Your task to perform on an android device: allow notifications from all sites in the chrome app Image 0: 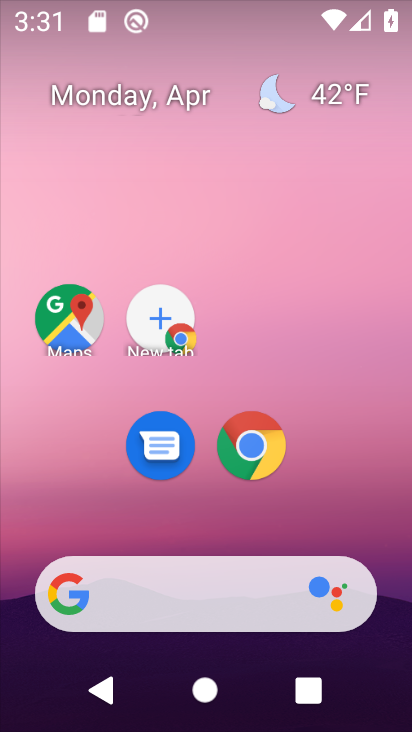
Step 0: click (254, 436)
Your task to perform on an android device: allow notifications from all sites in the chrome app Image 1: 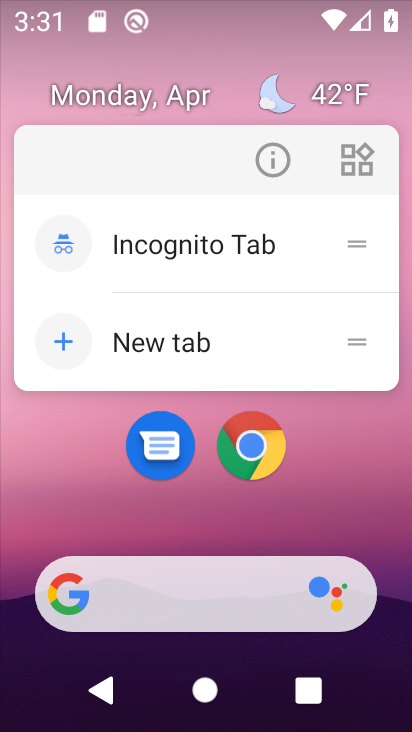
Step 1: click (246, 448)
Your task to perform on an android device: allow notifications from all sites in the chrome app Image 2: 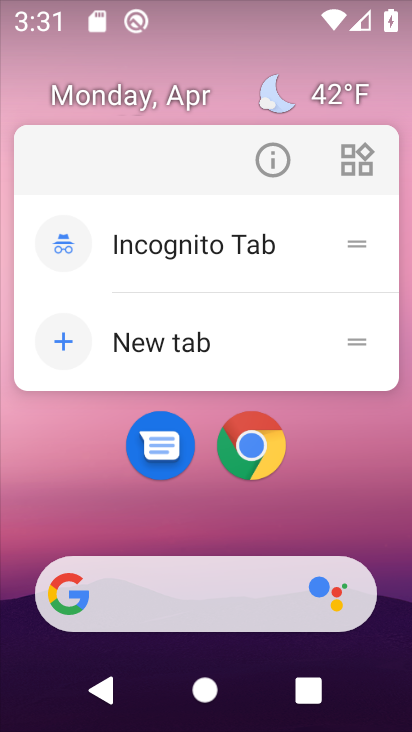
Step 2: click (246, 448)
Your task to perform on an android device: allow notifications from all sites in the chrome app Image 3: 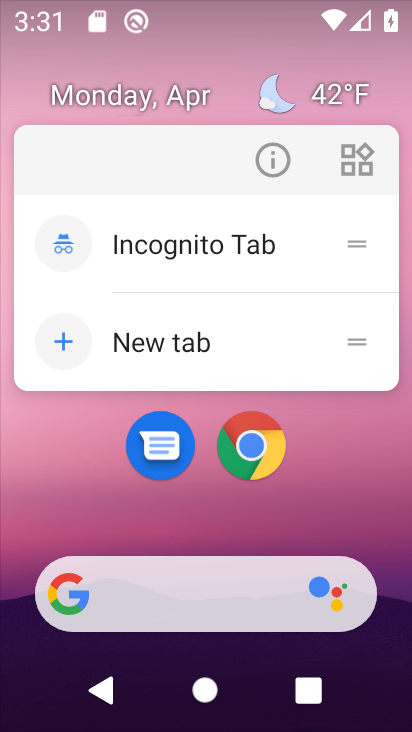
Step 3: click (321, 453)
Your task to perform on an android device: allow notifications from all sites in the chrome app Image 4: 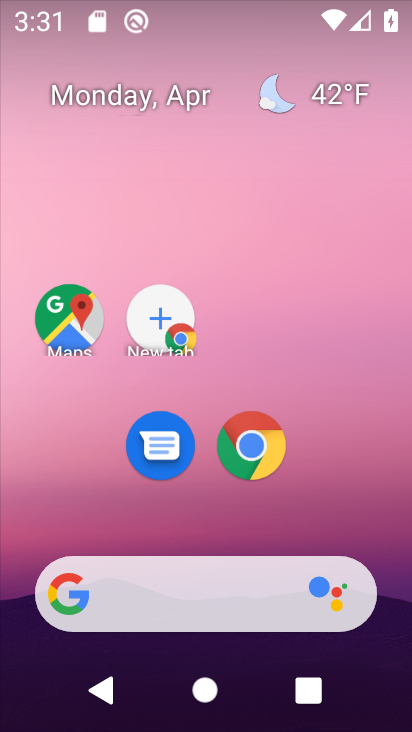
Step 4: click (251, 439)
Your task to perform on an android device: allow notifications from all sites in the chrome app Image 5: 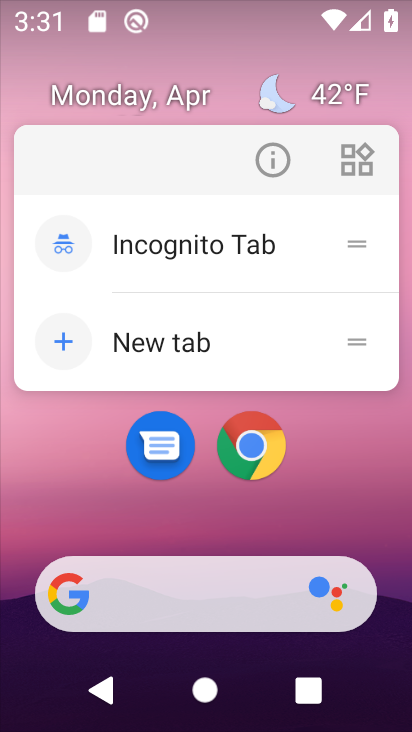
Step 5: click (323, 424)
Your task to perform on an android device: allow notifications from all sites in the chrome app Image 6: 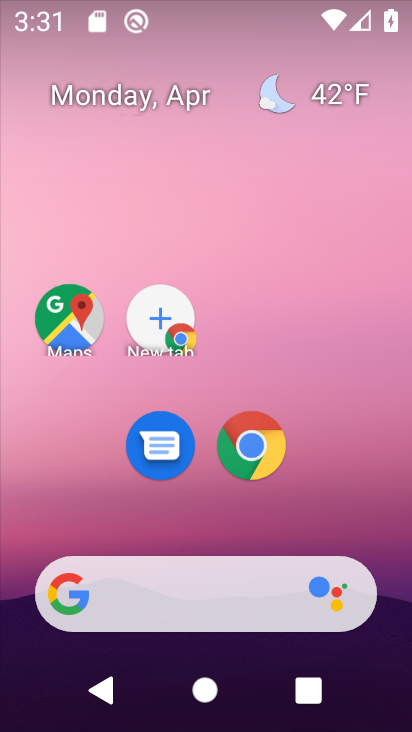
Step 6: click (387, 440)
Your task to perform on an android device: allow notifications from all sites in the chrome app Image 7: 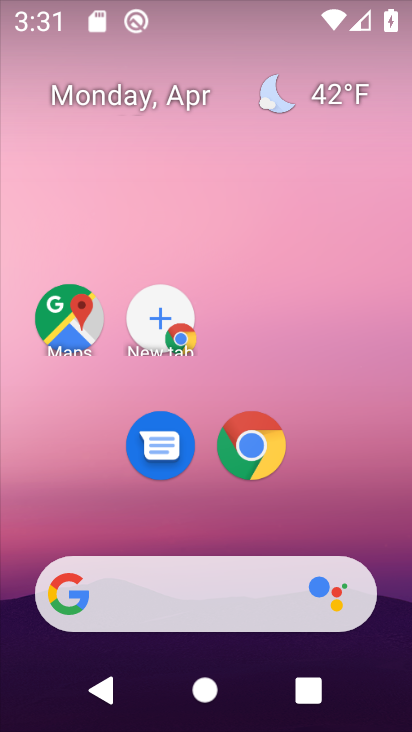
Step 7: click (248, 439)
Your task to perform on an android device: allow notifications from all sites in the chrome app Image 8: 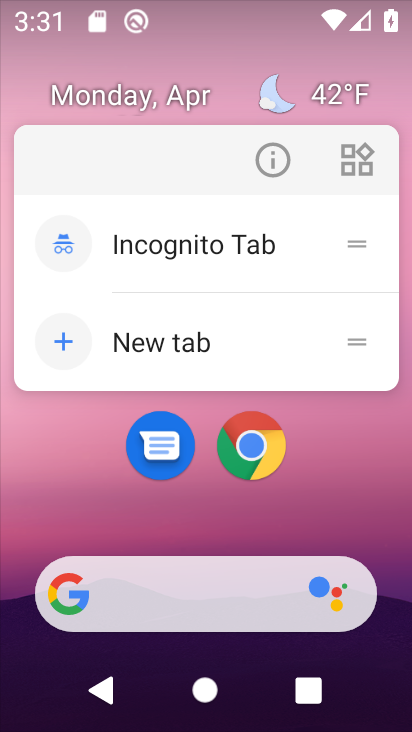
Step 8: click (248, 439)
Your task to perform on an android device: allow notifications from all sites in the chrome app Image 9: 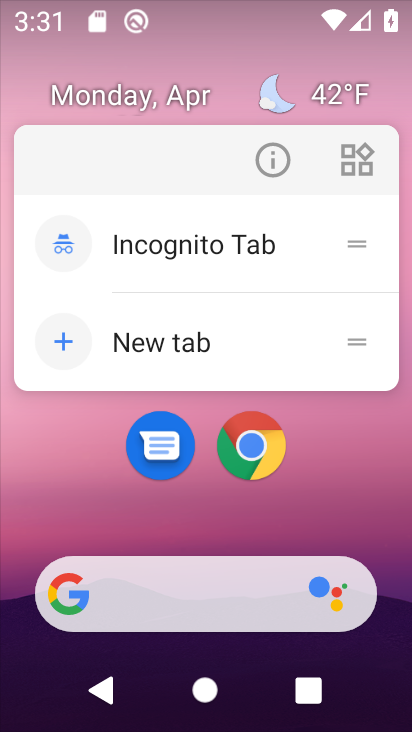
Step 9: click (317, 446)
Your task to perform on an android device: allow notifications from all sites in the chrome app Image 10: 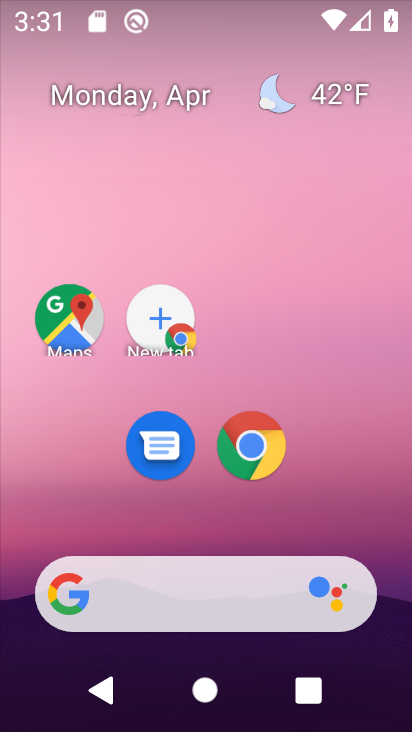
Step 10: click (336, 500)
Your task to perform on an android device: allow notifications from all sites in the chrome app Image 11: 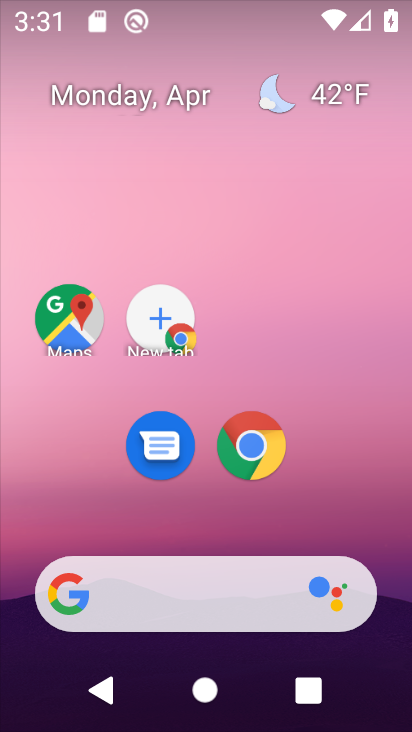
Step 11: click (173, 521)
Your task to perform on an android device: allow notifications from all sites in the chrome app Image 12: 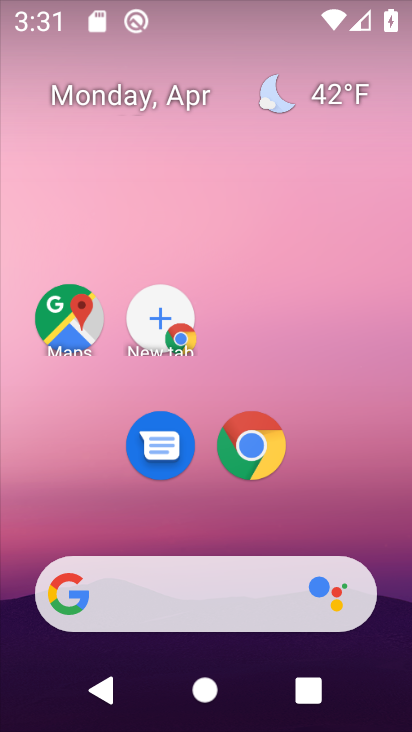
Step 12: click (246, 451)
Your task to perform on an android device: allow notifications from all sites in the chrome app Image 13: 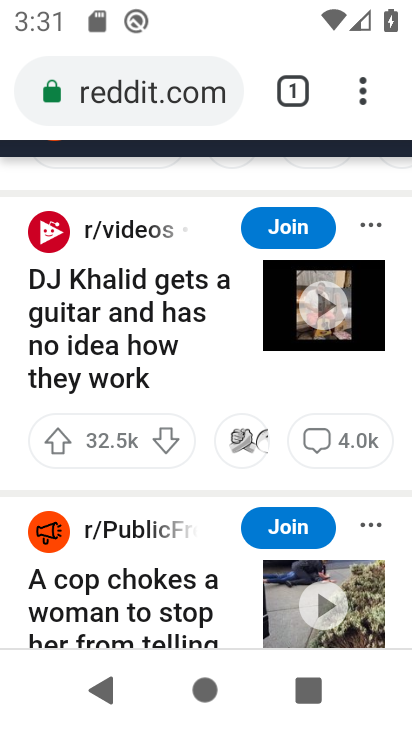
Step 13: click (365, 87)
Your task to perform on an android device: allow notifications from all sites in the chrome app Image 14: 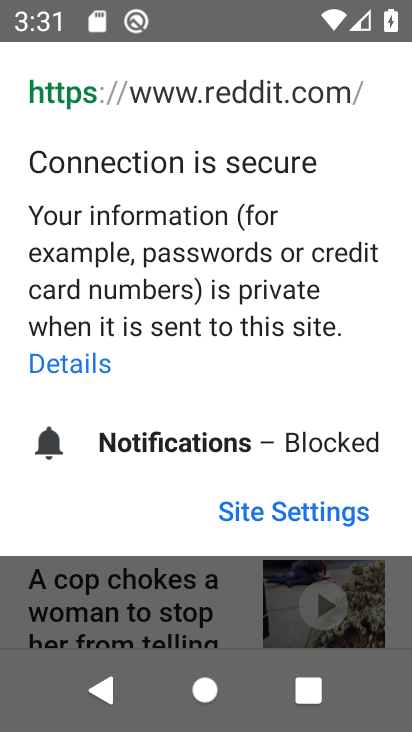
Step 14: click (254, 618)
Your task to perform on an android device: allow notifications from all sites in the chrome app Image 15: 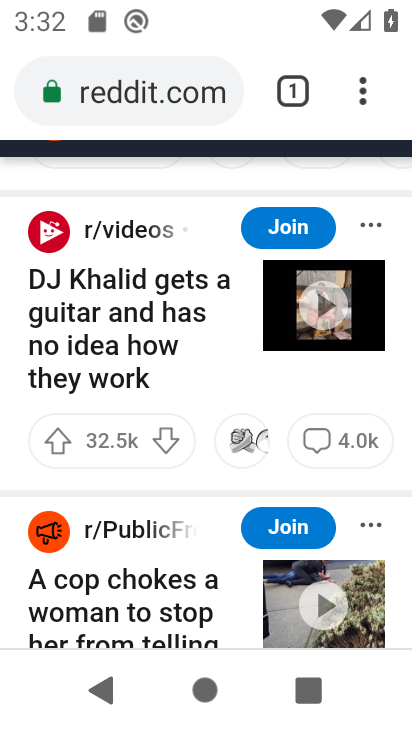
Step 15: click (360, 81)
Your task to perform on an android device: allow notifications from all sites in the chrome app Image 16: 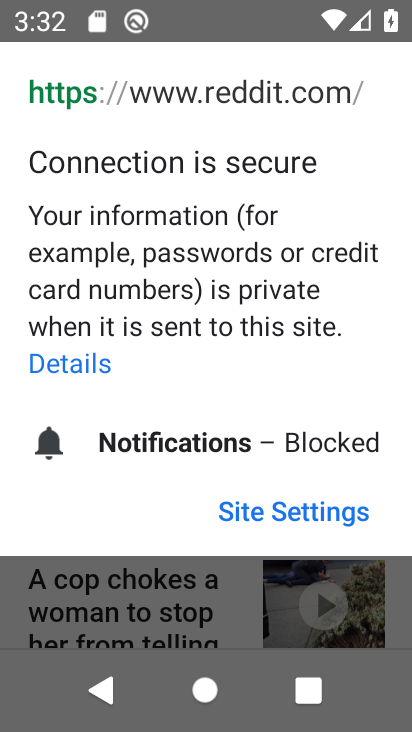
Step 16: click (294, 515)
Your task to perform on an android device: allow notifications from all sites in the chrome app Image 17: 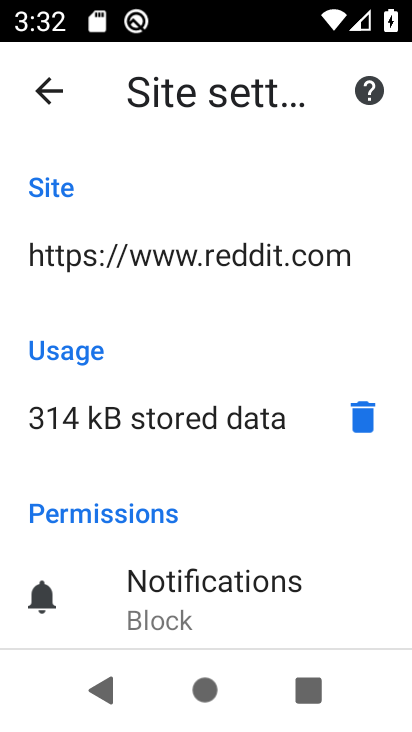
Step 17: click (217, 601)
Your task to perform on an android device: allow notifications from all sites in the chrome app Image 18: 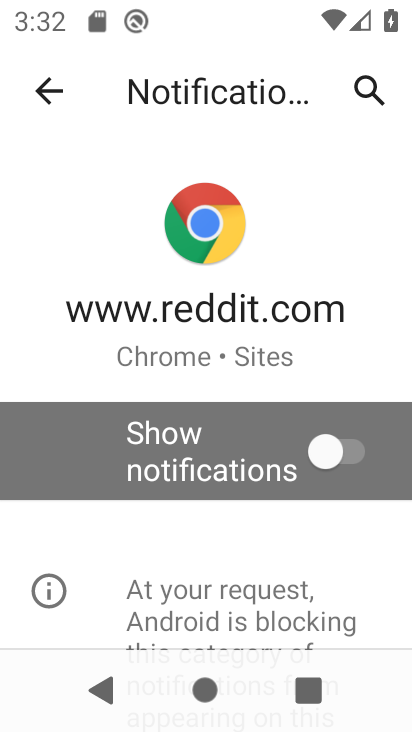
Step 18: click (331, 446)
Your task to perform on an android device: allow notifications from all sites in the chrome app Image 19: 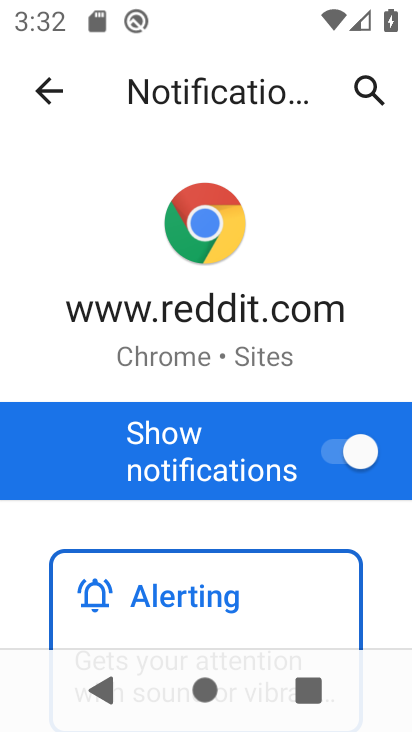
Step 19: task complete